Your task to perform on an android device: allow notifications from all sites in the chrome app Image 0: 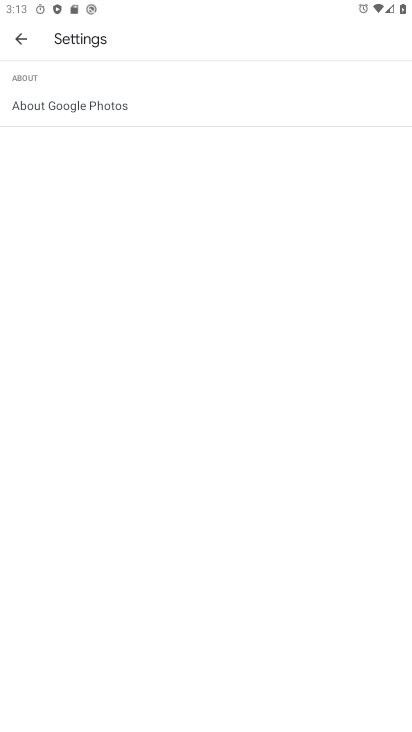
Step 0: press home button
Your task to perform on an android device: allow notifications from all sites in the chrome app Image 1: 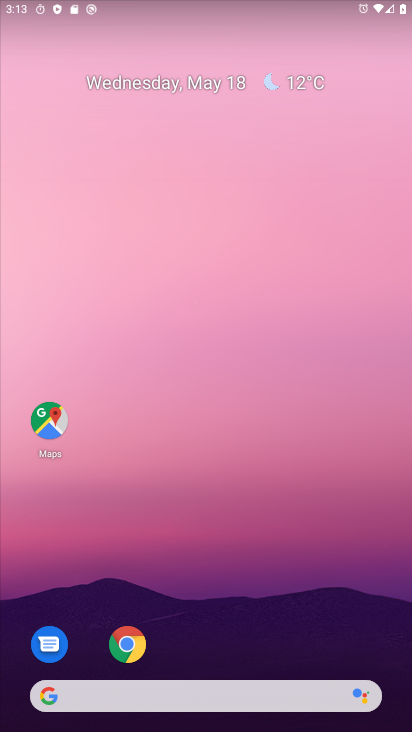
Step 1: click (131, 640)
Your task to perform on an android device: allow notifications from all sites in the chrome app Image 2: 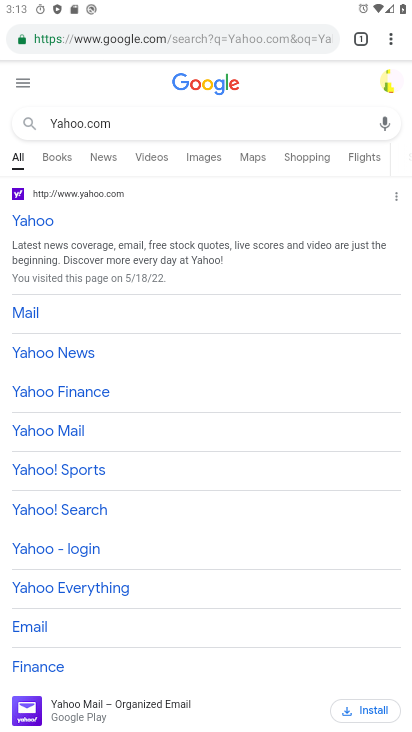
Step 2: click (391, 29)
Your task to perform on an android device: allow notifications from all sites in the chrome app Image 3: 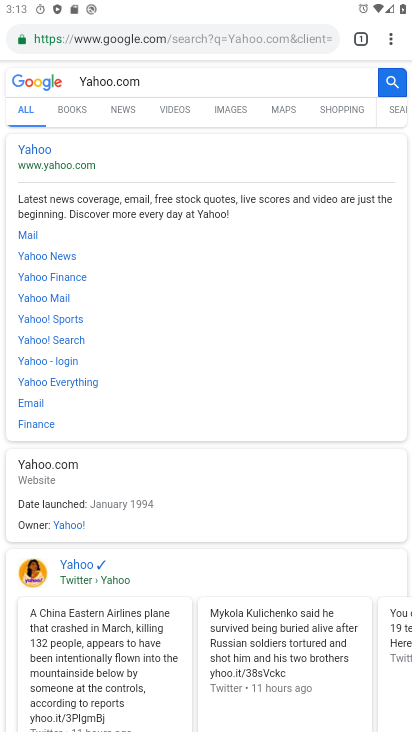
Step 3: click (393, 38)
Your task to perform on an android device: allow notifications from all sites in the chrome app Image 4: 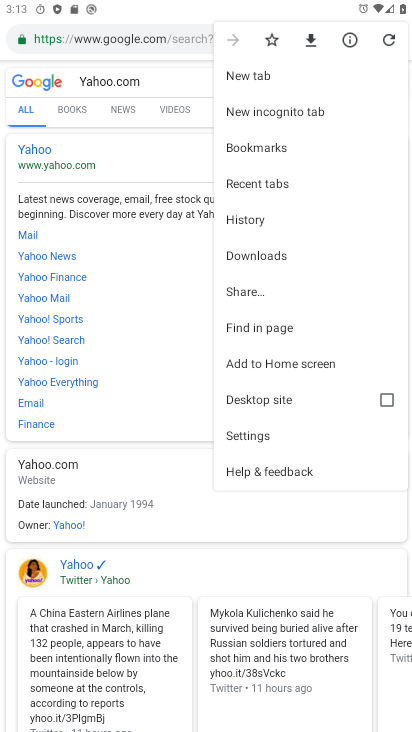
Step 4: click (253, 434)
Your task to perform on an android device: allow notifications from all sites in the chrome app Image 5: 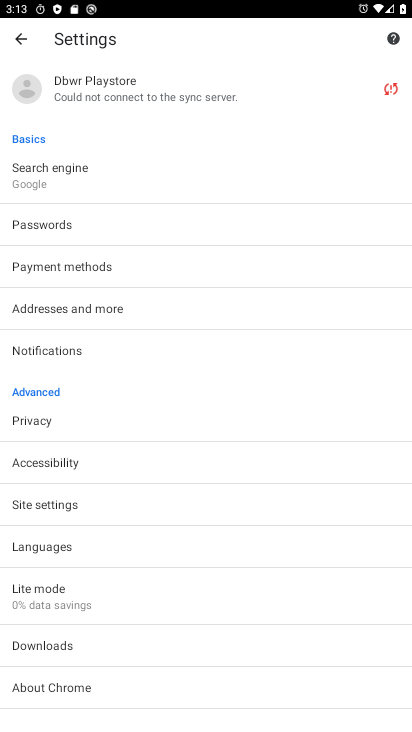
Step 5: click (61, 513)
Your task to perform on an android device: allow notifications from all sites in the chrome app Image 6: 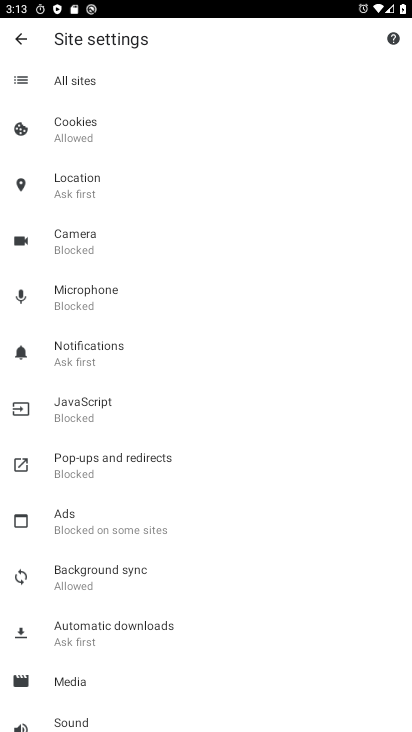
Step 6: click (83, 352)
Your task to perform on an android device: allow notifications from all sites in the chrome app Image 7: 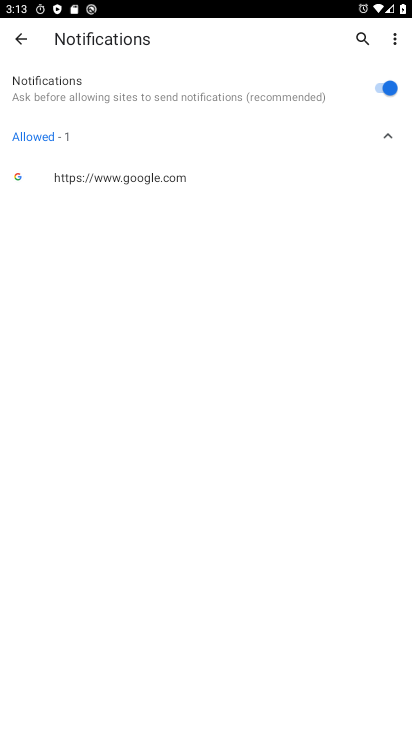
Step 7: task complete